Your task to perform on an android device: Go to settings Image 0: 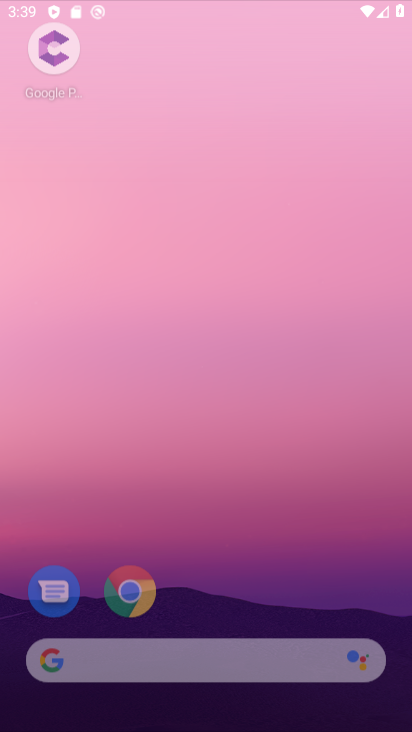
Step 0: drag from (230, 460) to (163, 82)
Your task to perform on an android device: Go to settings Image 1: 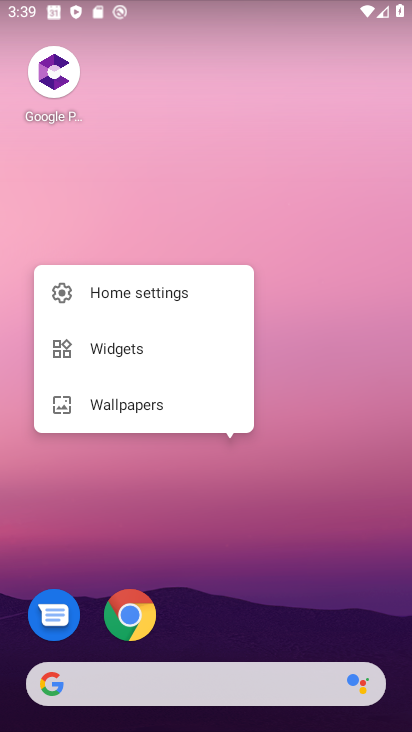
Step 1: drag from (314, 613) to (387, 77)
Your task to perform on an android device: Go to settings Image 2: 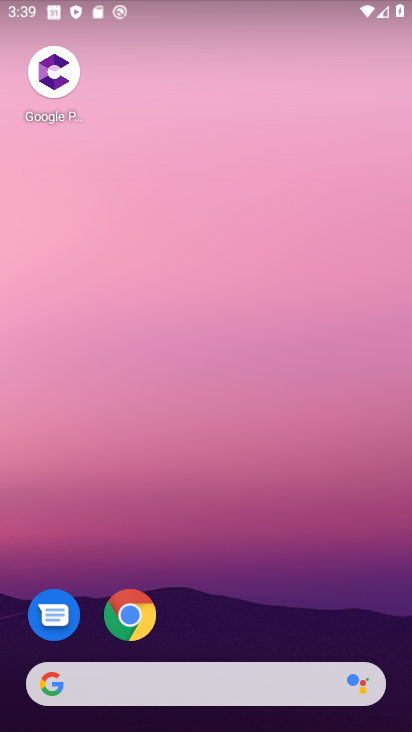
Step 2: drag from (238, 549) to (186, 79)
Your task to perform on an android device: Go to settings Image 3: 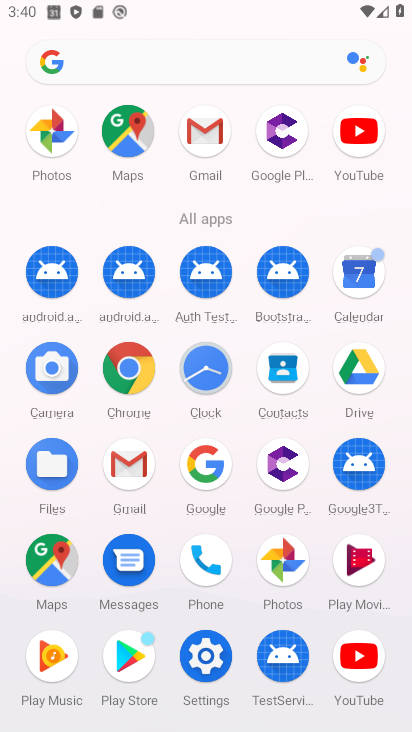
Step 3: click (199, 644)
Your task to perform on an android device: Go to settings Image 4: 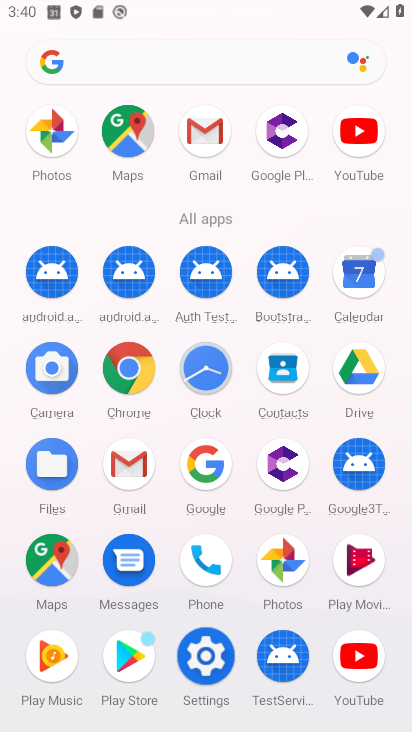
Step 4: click (200, 647)
Your task to perform on an android device: Go to settings Image 5: 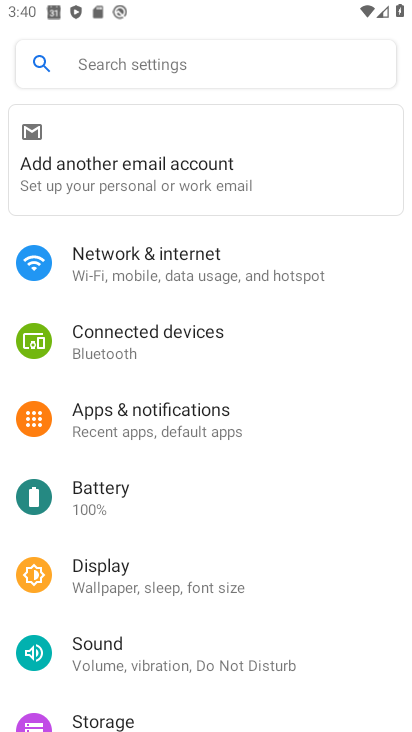
Step 5: task complete